Your task to perform on an android device: toggle javascript in the chrome app Image 0: 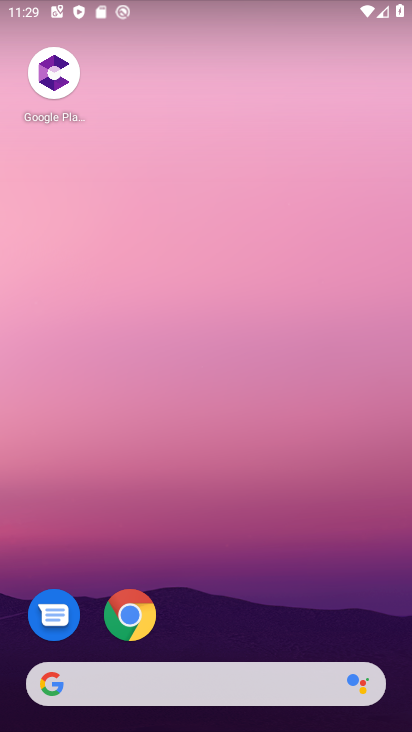
Step 0: click (132, 606)
Your task to perform on an android device: toggle javascript in the chrome app Image 1: 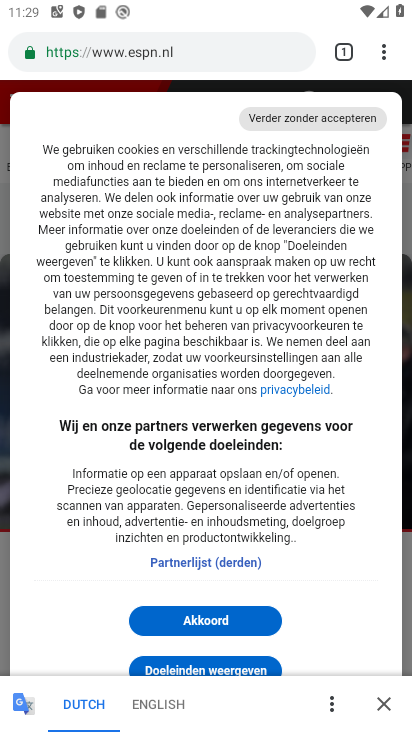
Step 1: click (381, 47)
Your task to perform on an android device: toggle javascript in the chrome app Image 2: 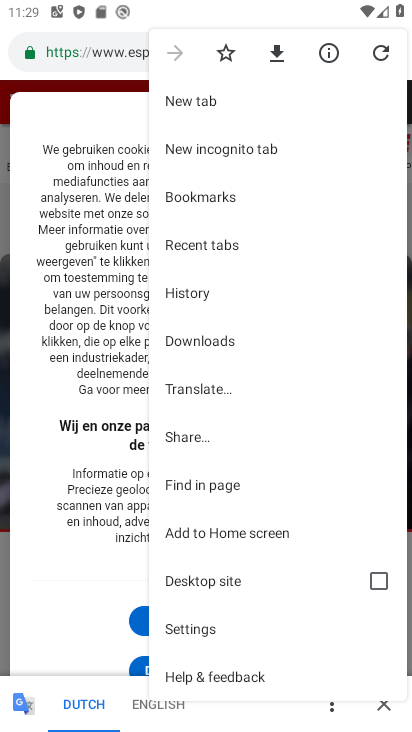
Step 2: click (215, 628)
Your task to perform on an android device: toggle javascript in the chrome app Image 3: 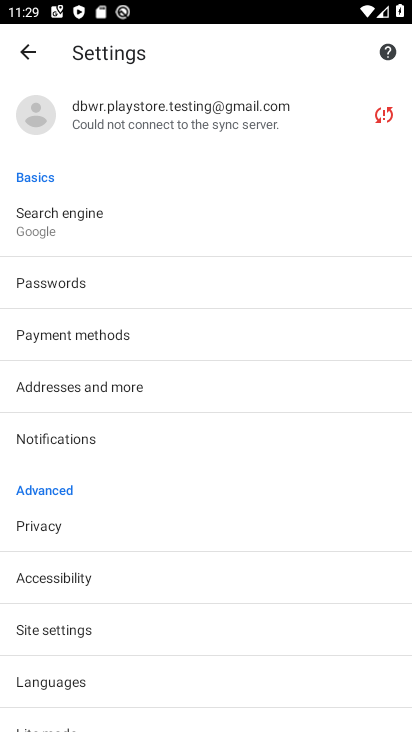
Step 3: click (215, 630)
Your task to perform on an android device: toggle javascript in the chrome app Image 4: 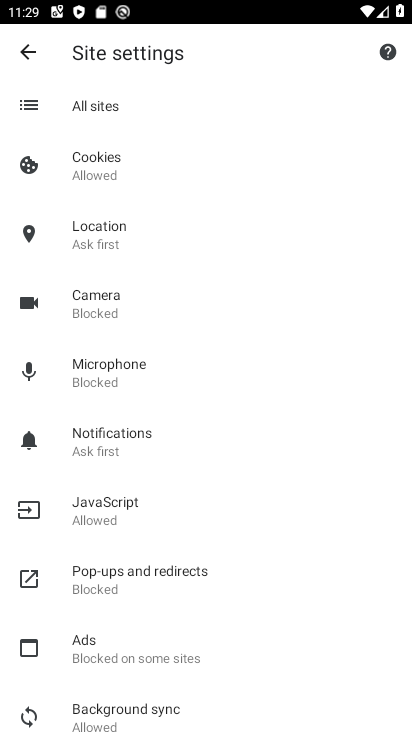
Step 4: click (157, 507)
Your task to perform on an android device: toggle javascript in the chrome app Image 5: 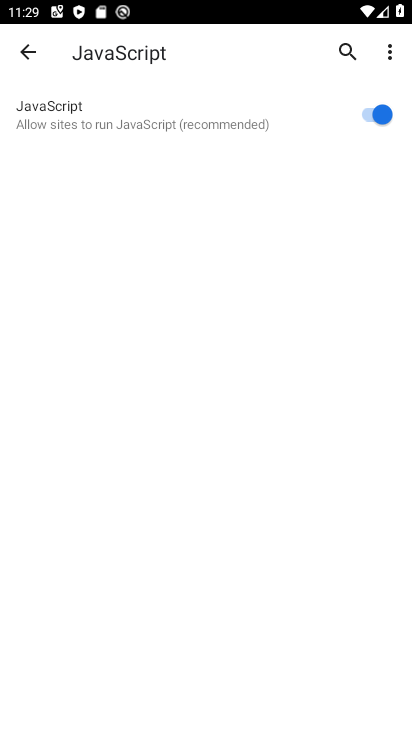
Step 5: click (364, 103)
Your task to perform on an android device: toggle javascript in the chrome app Image 6: 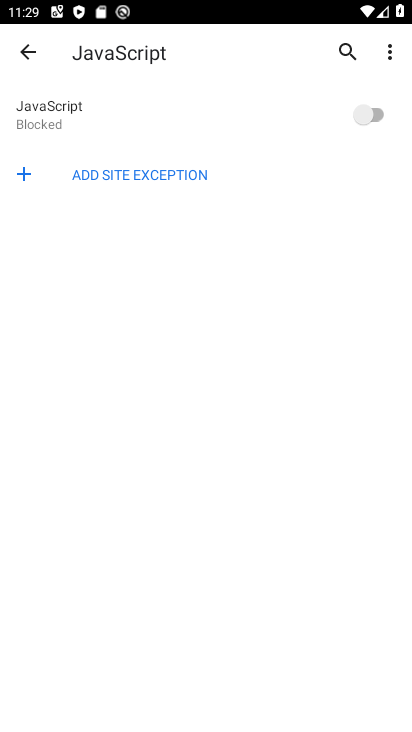
Step 6: task complete